Your task to perform on an android device: open a new tab in the chrome app Image 0: 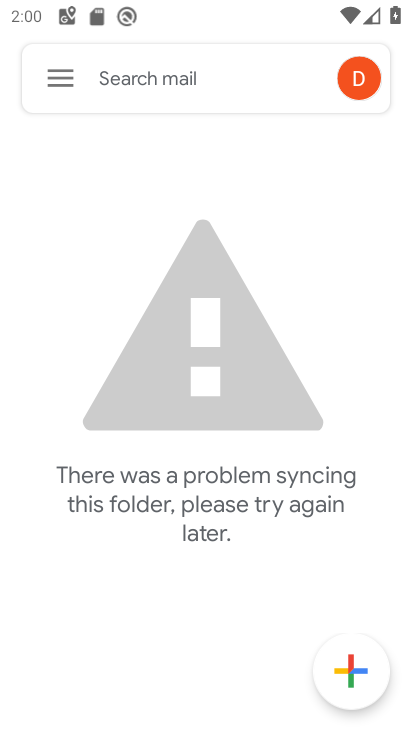
Step 0: press home button
Your task to perform on an android device: open a new tab in the chrome app Image 1: 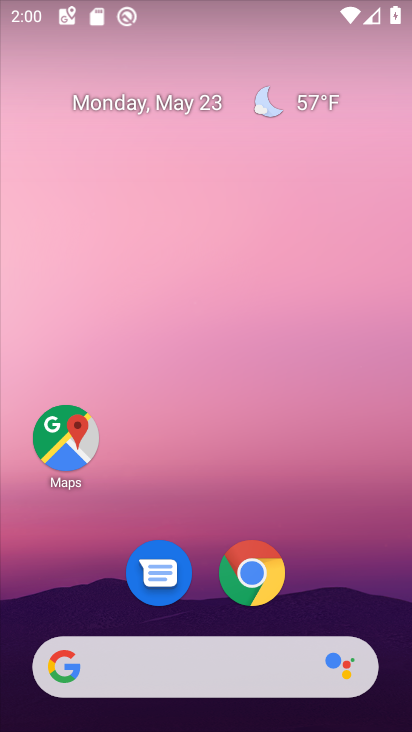
Step 1: drag from (319, 530) to (310, 52)
Your task to perform on an android device: open a new tab in the chrome app Image 2: 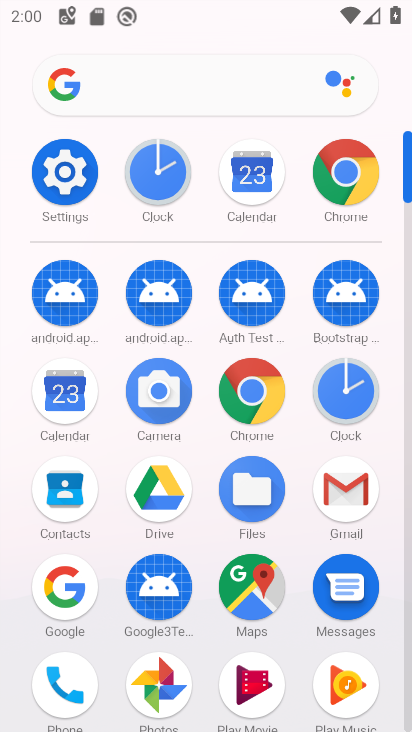
Step 2: click (61, 188)
Your task to perform on an android device: open a new tab in the chrome app Image 3: 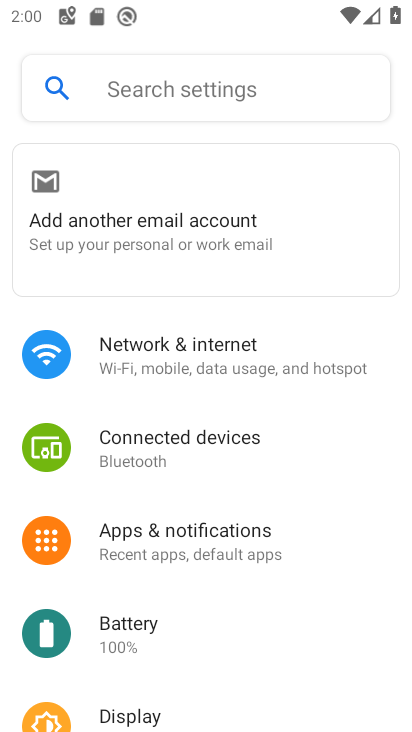
Step 3: press home button
Your task to perform on an android device: open a new tab in the chrome app Image 4: 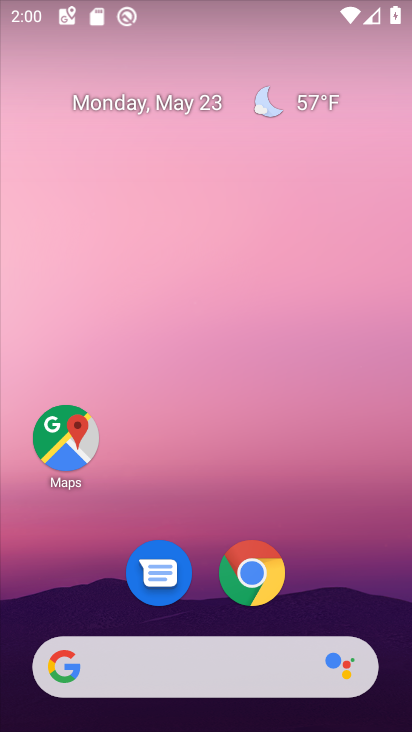
Step 4: click (245, 577)
Your task to perform on an android device: open a new tab in the chrome app Image 5: 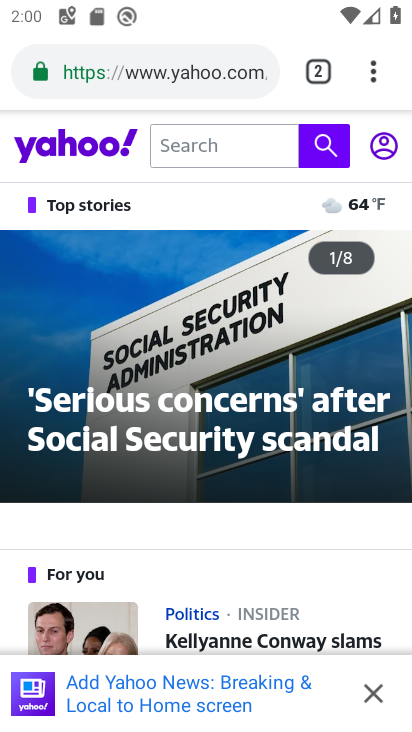
Step 5: click (362, 67)
Your task to perform on an android device: open a new tab in the chrome app Image 6: 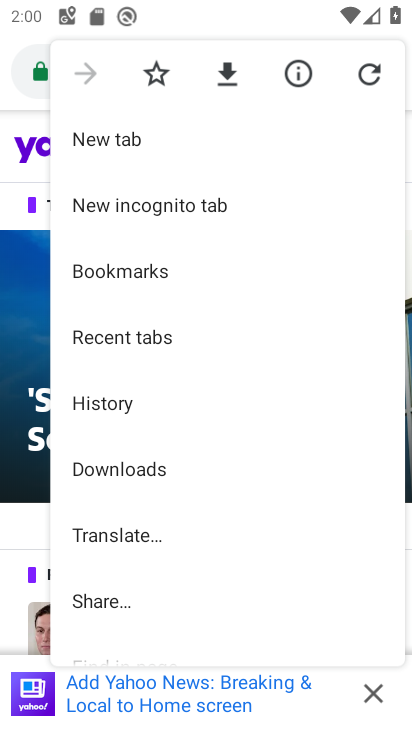
Step 6: click (121, 145)
Your task to perform on an android device: open a new tab in the chrome app Image 7: 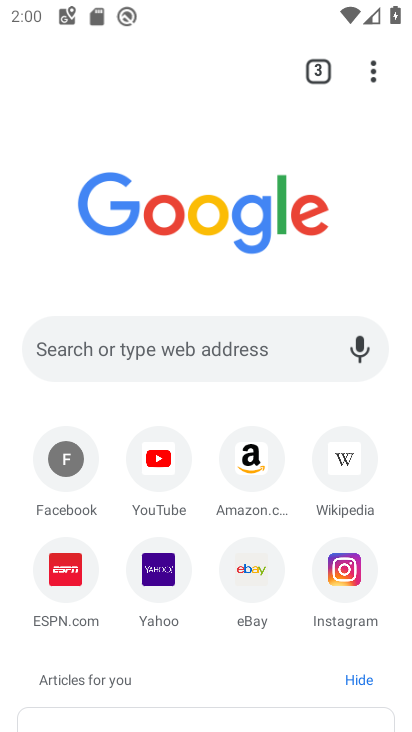
Step 7: task complete